Your task to perform on an android device: check the backup settings in the google photos Image 0: 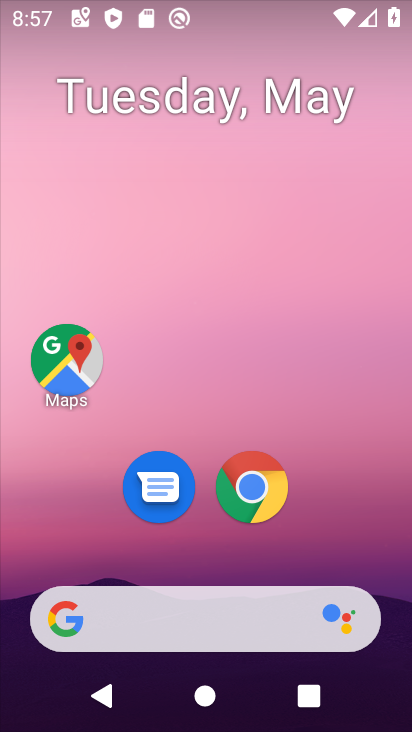
Step 0: drag from (373, 558) to (370, 170)
Your task to perform on an android device: check the backup settings in the google photos Image 1: 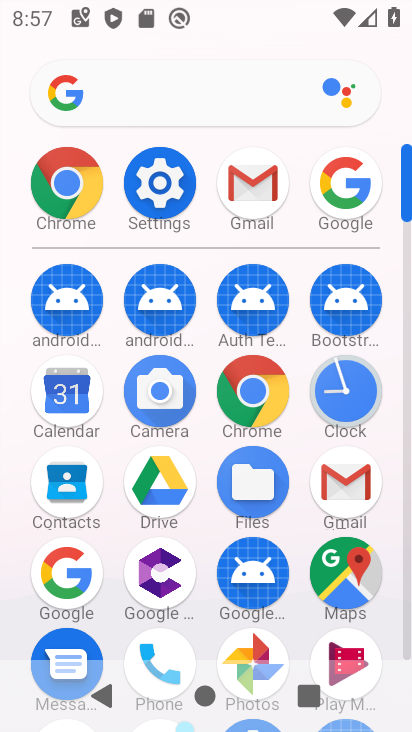
Step 1: drag from (382, 627) to (393, 338)
Your task to perform on an android device: check the backup settings in the google photos Image 2: 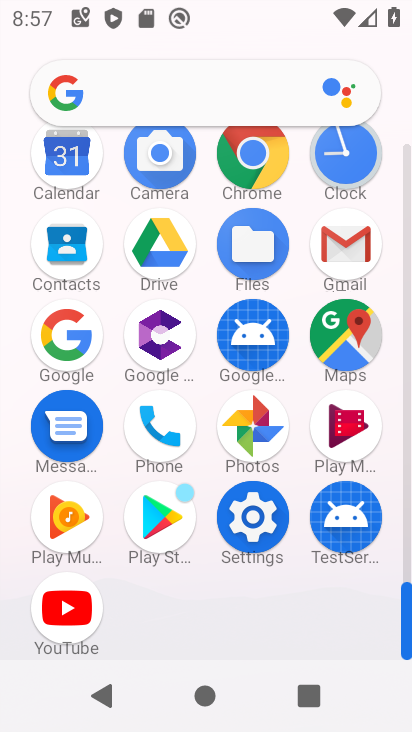
Step 2: click (255, 441)
Your task to perform on an android device: check the backup settings in the google photos Image 3: 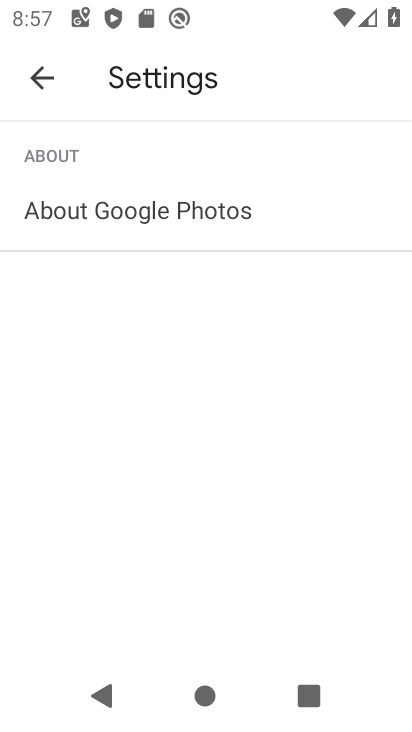
Step 3: press back button
Your task to perform on an android device: check the backup settings in the google photos Image 4: 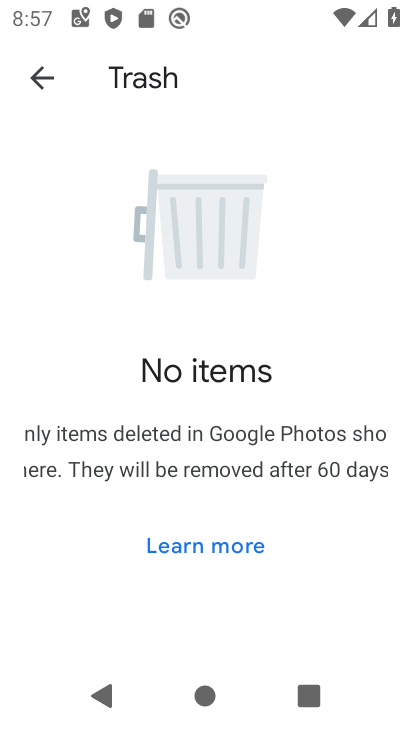
Step 4: press back button
Your task to perform on an android device: check the backup settings in the google photos Image 5: 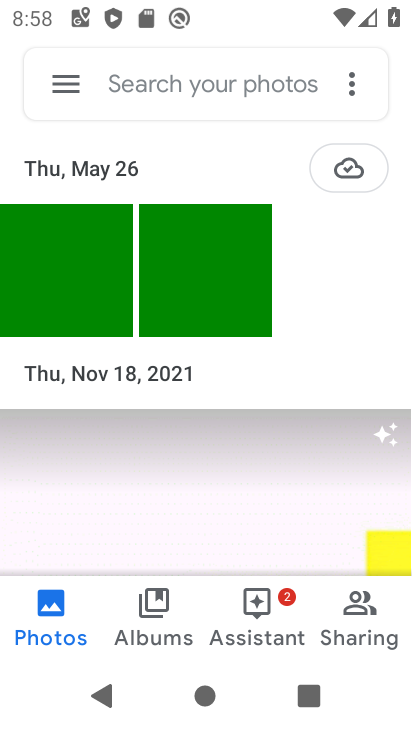
Step 5: click (54, 87)
Your task to perform on an android device: check the backup settings in the google photos Image 6: 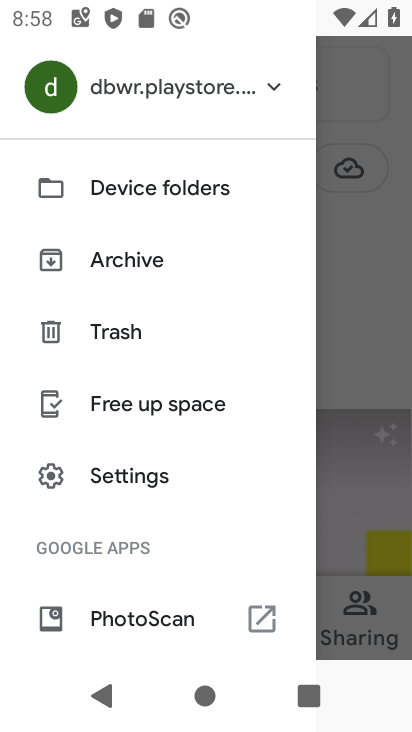
Step 6: click (174, 480)
Your task to perform on an android device: check the backup settings in the google photos Image 7: 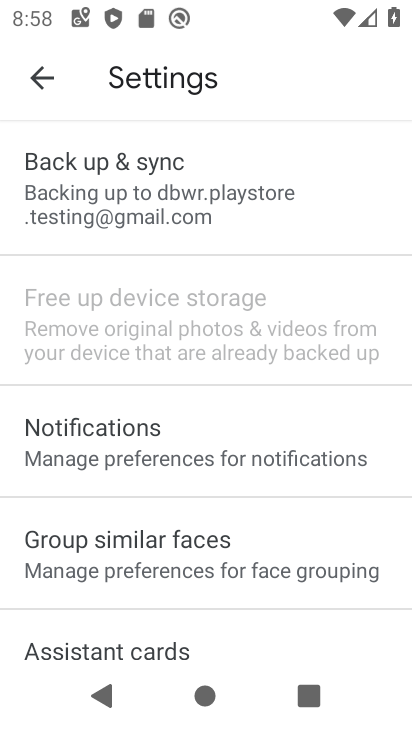
Step 7: click (233, 198)
Your task to perform on an android device: check the backup settings in the google photos Image 8: 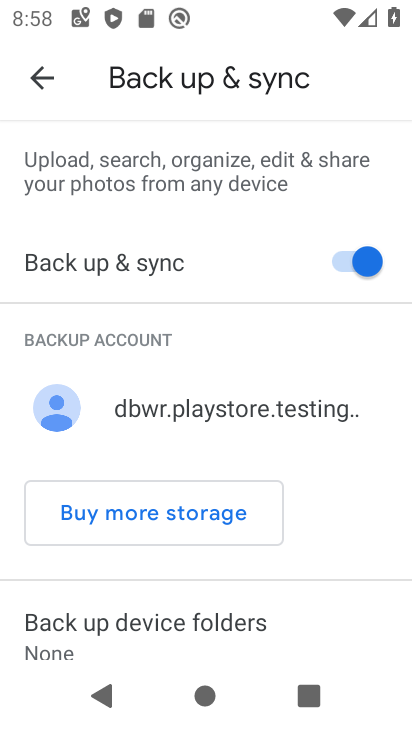
Step 8: task complete